Your task to perform on an android device: Go to Reddit.com Image 0: 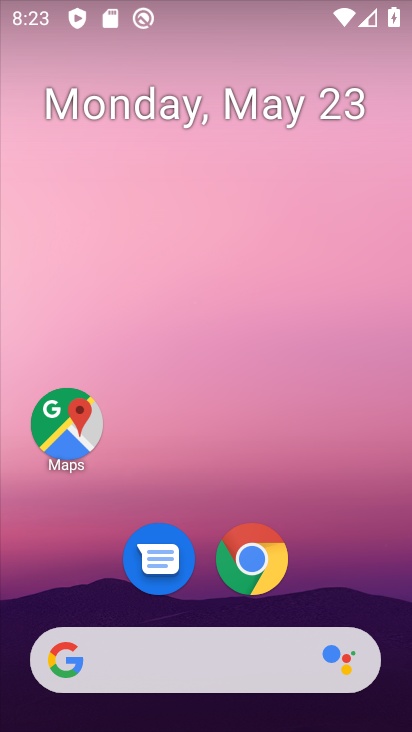
Step 0: click (251, 562)
Your task to perform on an android device: Go to Reddit.com Image 1: 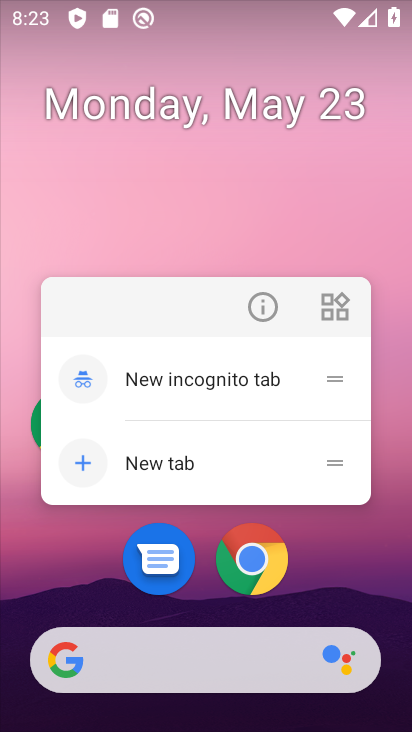
Step 1: click (241, 557)
Your task to perform on an android device: Go to Reddit.com Image 2: 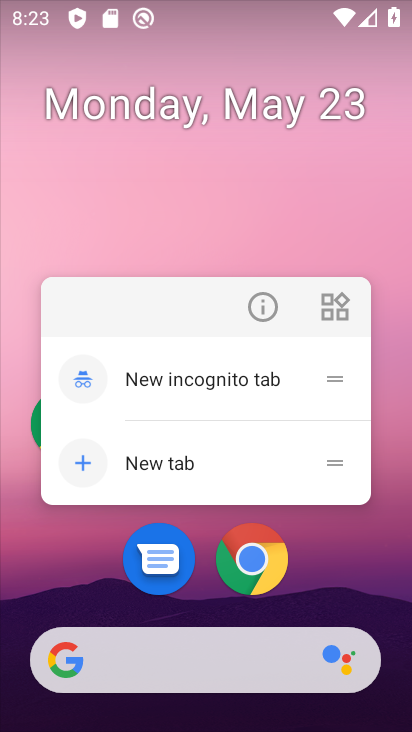
Step 2: click (267, 555)
Your task to perform on an android device: Go to Reddit.com Image 3: 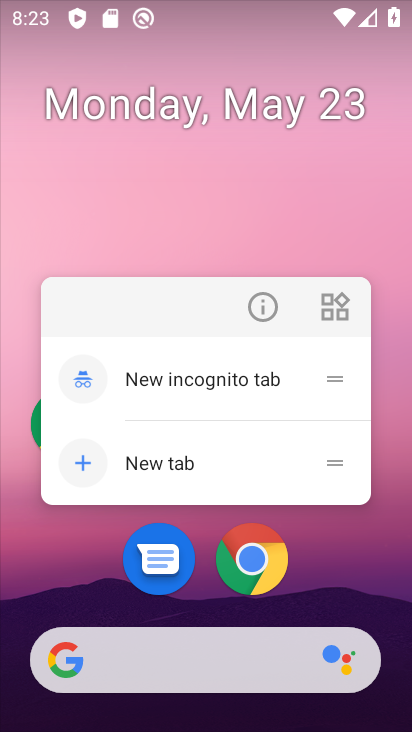
Step 3: click (266, 556)
Your task to perform on an android device: Go to Reddit.com Image 4: 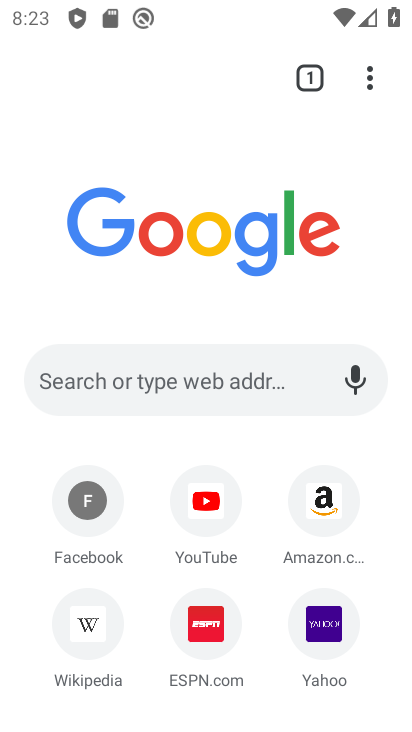
Step 4: click (118, 372)
Your task to perform on an android device: Go to Reddit.com Image 5: 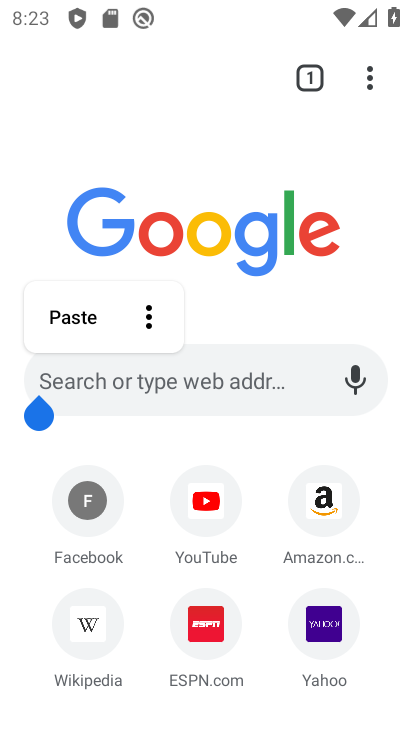
Step 5: click (193, 366)
Your task to perform on an android device: Go to Reddit.com Image 6: 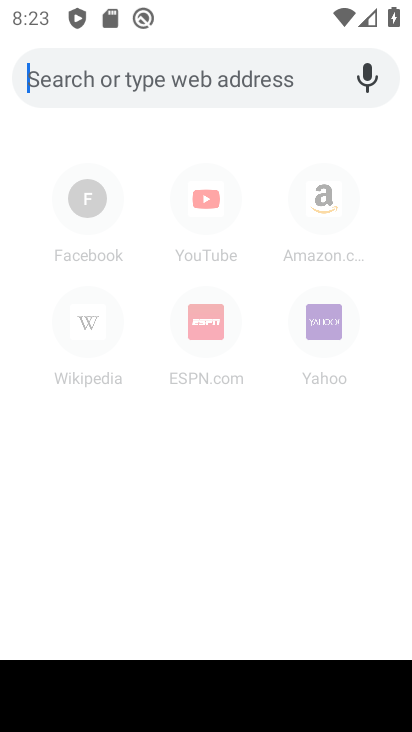
Step 6: type "reddit.com"
Your task to perform on an android device: Go to Reddit.com Image 7: 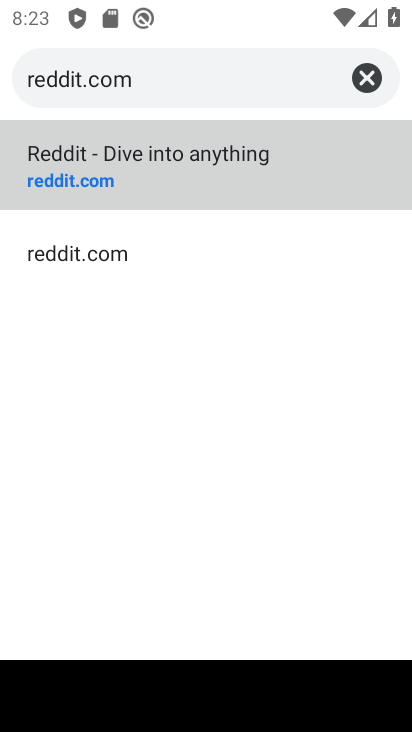
Step 7: click (146, 154)
Your task to perform on an android device: Go to Reddit.com Image 8: 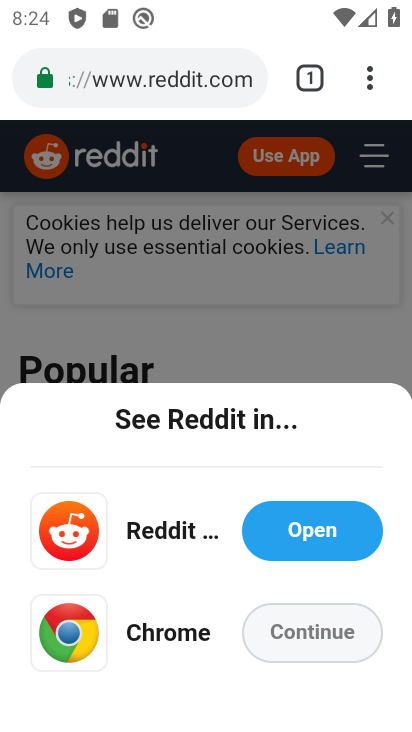
Step 8: task complete